Your task to perform on an android device: see sites visited before in the chrome app Image 0: 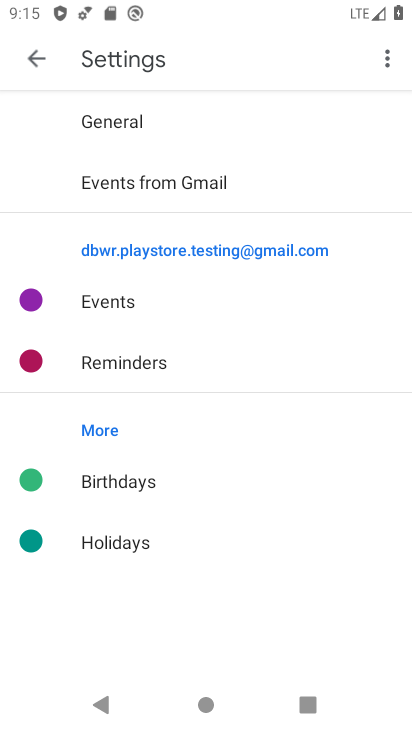
Step 0: press home button
Your task to perform on an android device: see sites visited before in the chrome app Image 1: 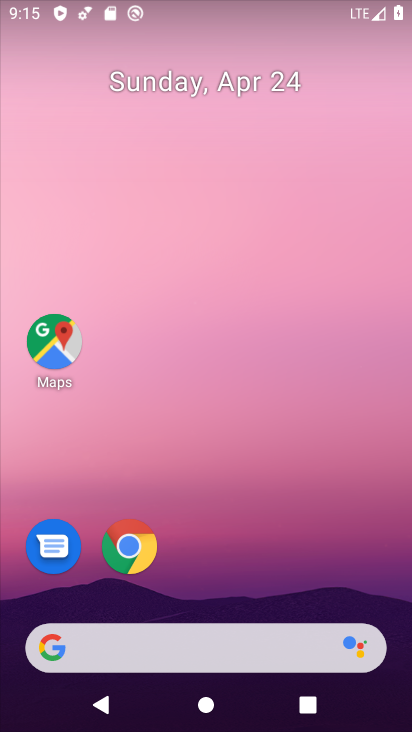
Step 1: click (134, 551)
Your task to perform on an android device: see sites visited before in the chrome app Image 2: 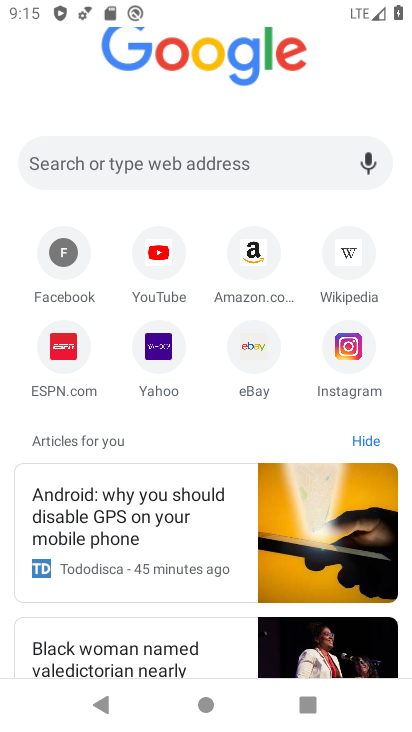
Step 2: drag from (349, 105) to (324, 593)
Your task to perform on an android device: see sites visited before in the chrome app Image 3: 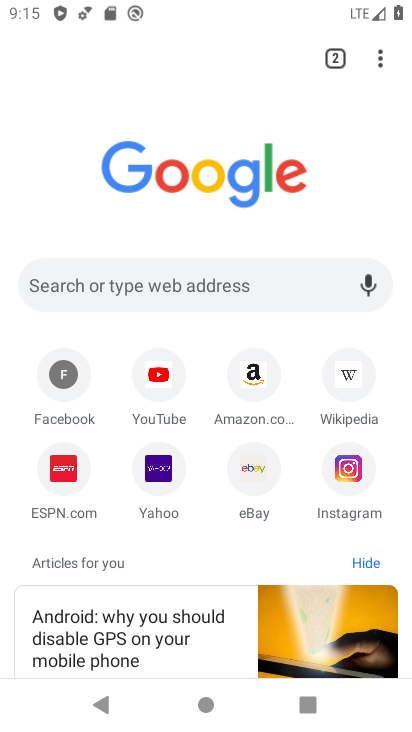
Step 3: click (378, 63)
Your task to perform on an android device: see sites visited before in the chrome app Image 4: 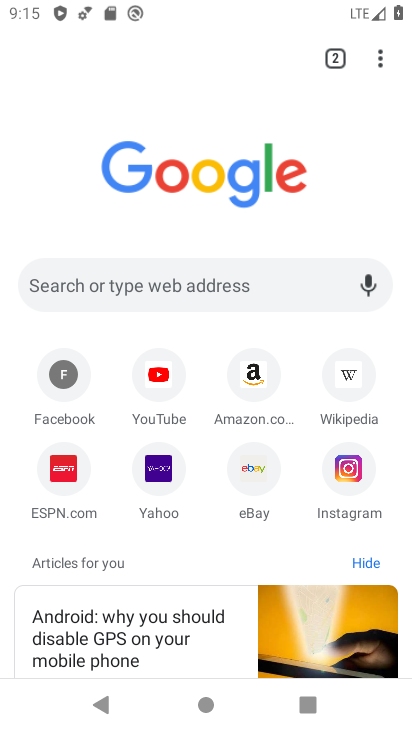
Step 4: click (378, 55)
Your task to perform on an android device: see sites visited before in the chrome app Image 5: 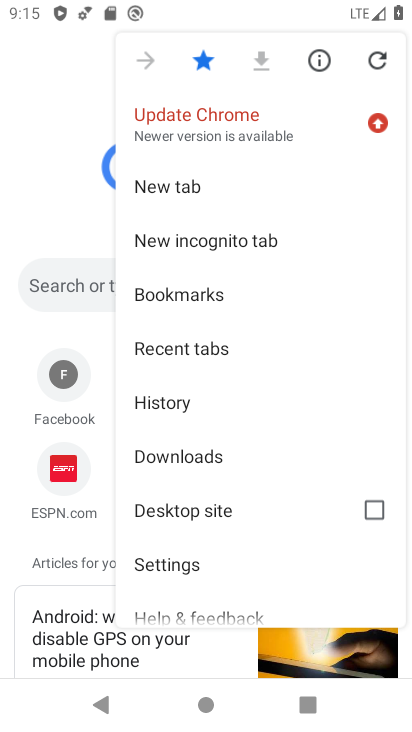
Step 5: click (229, 331)
Your task to perform on an android device: see sites visited before in the chrome app Image 6: 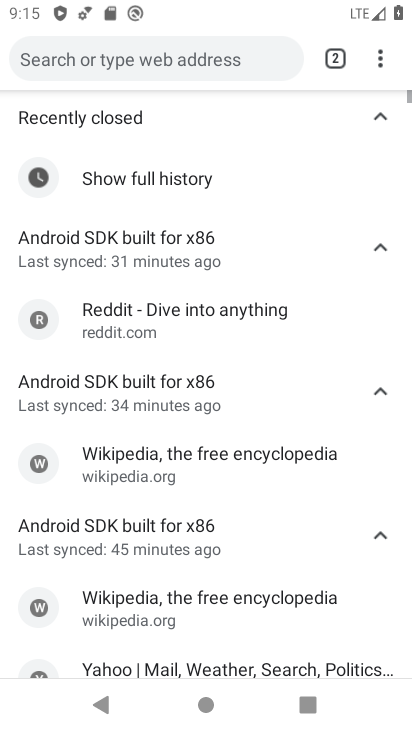
Step 6: task complete